Your task to perform on an android device: Is it going to rain today? Image 0: 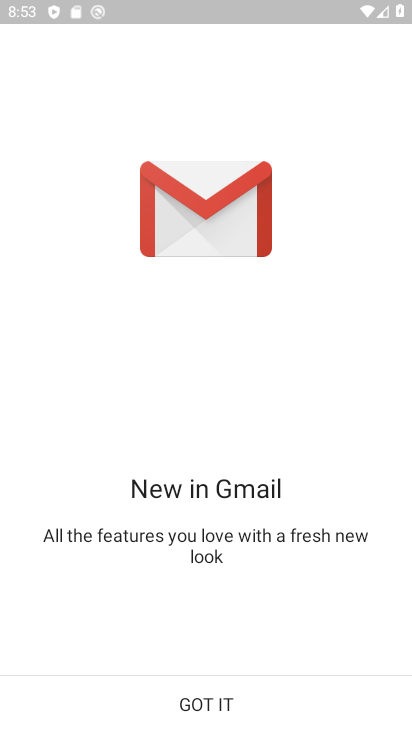
Step 0: press back button
Your task to perform on an android device: Is it going to rain today? Image 1: 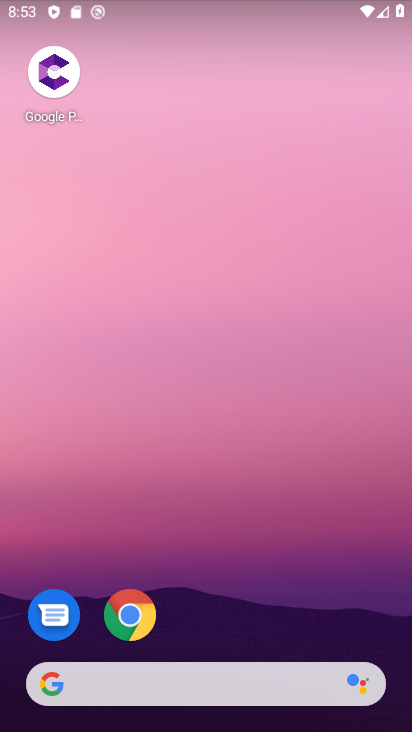
Step 1: click (180, 687)
Your task to perform on an android device: Is it going to rain today? Image 2: 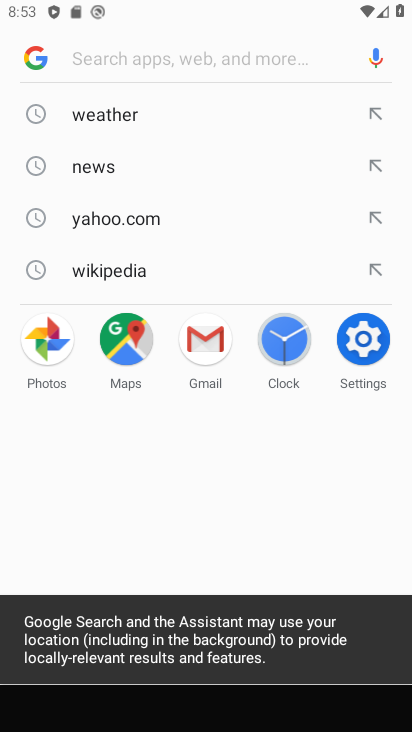
Step 2: click (103, 111)
Your task to perform on an android device: Is it going to rain today? Image 3: 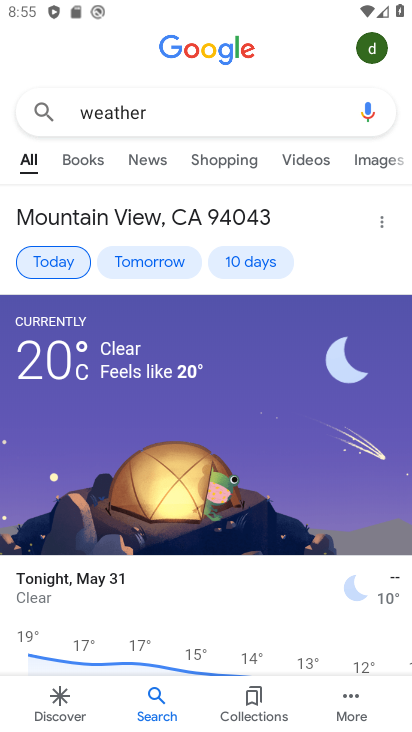
Step 3: task complete